Your task to perform on an android device: Open the calendar app, open the side menu, and click the "Day" option Image 0: 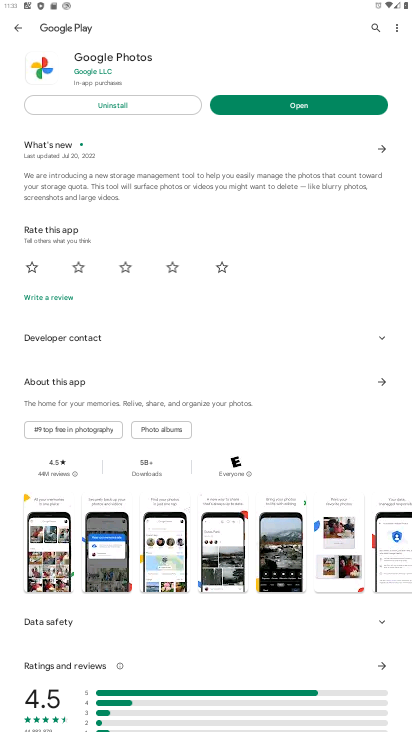
Step 0: press home button
Your task to perform on an android device: Open the calendar app, open the side menu, and click the "Day" option Image 1: 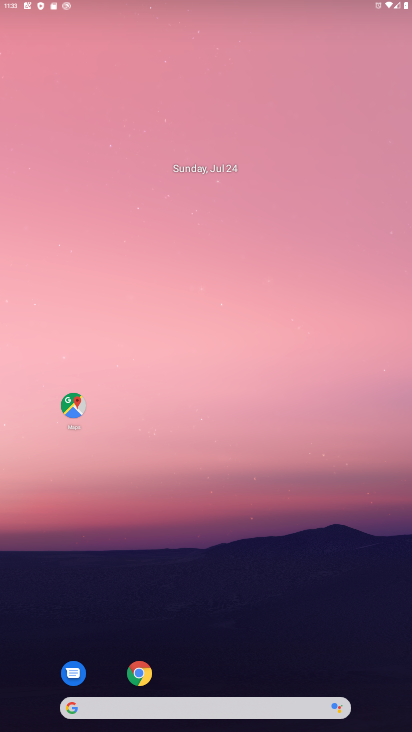
Step 1: drag from (348, 584) to (350, 80)
Your task to perform on an android device: Open the calendar app, open the side menu, and click the "Day" option Image 2: 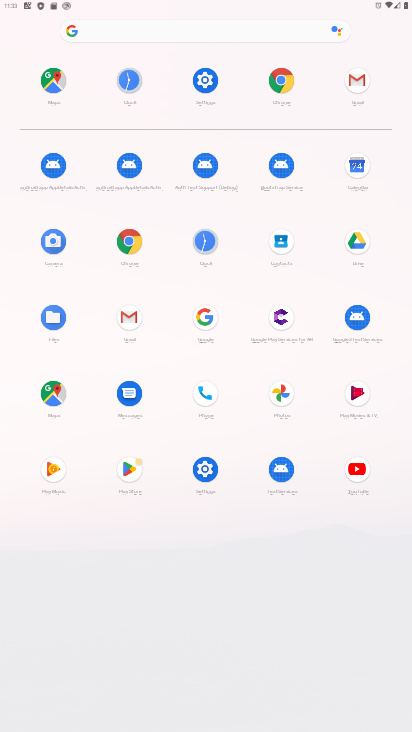
Step 2: click (363, 165)
Your task to perform on an android device: Open the calendar app, open the side menu, and click the "Day" option Image 3: 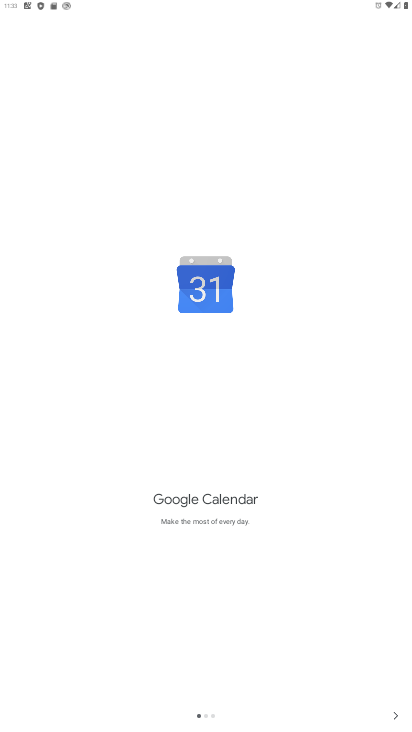
Step 3: click (398, 710)
Your task to perform on an android device: Open the calendar app, open the side menu, and click the "Day" option Image 4: 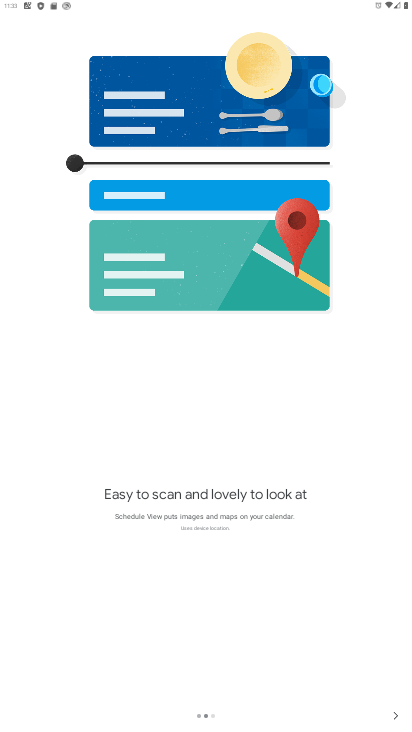
Step 4: click (395, 717)
Your task to perform on an android device: Open the calendar app, open the side menu, and click the "Day" option Image 5: 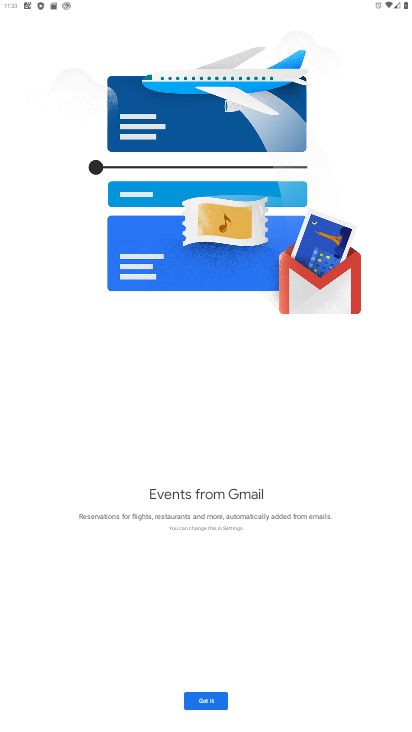
Step 5: click (215, 696)
Your task to perform on an android device: Open the calendar app, open the side menu, and click the "Day" option Image 6: 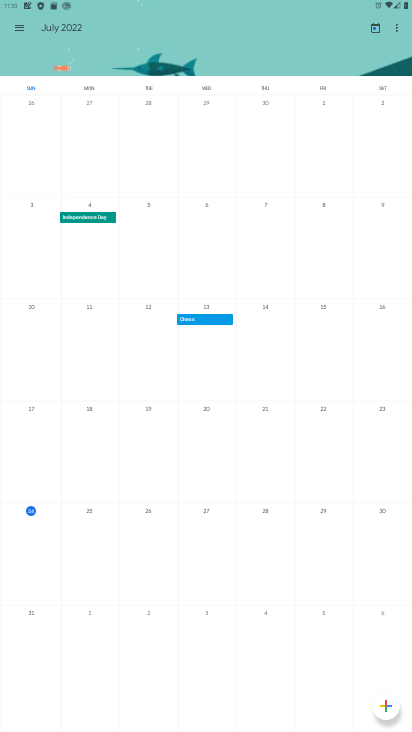
Step 6: click (28, 24)
Your task to perform on an android device: Open the calendar app, open the side menu, and click the "Day" option Image 7: 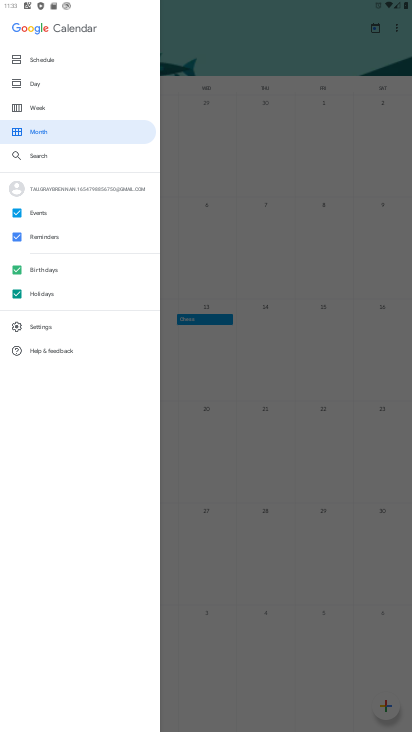
Step 7: click (41, 85)
Your task to perform on an android device: Open the calendar app, open the side menu, and click the "Day" option Image 8: 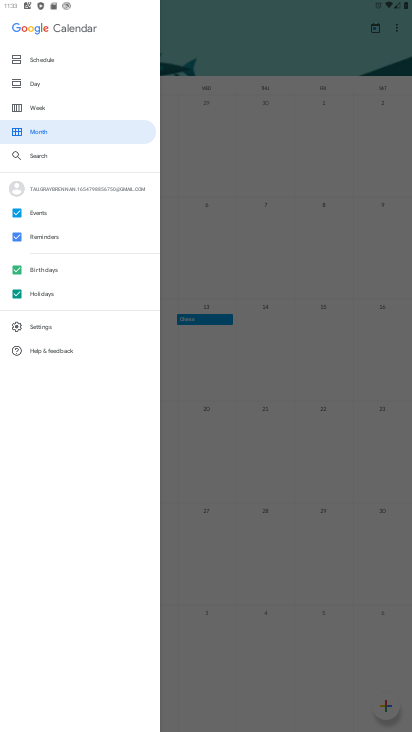
Step 8: click (30, 85)
Your task to perform on an android device: Open the calendar app, open the side menu, and click the "Day" option Image 9: 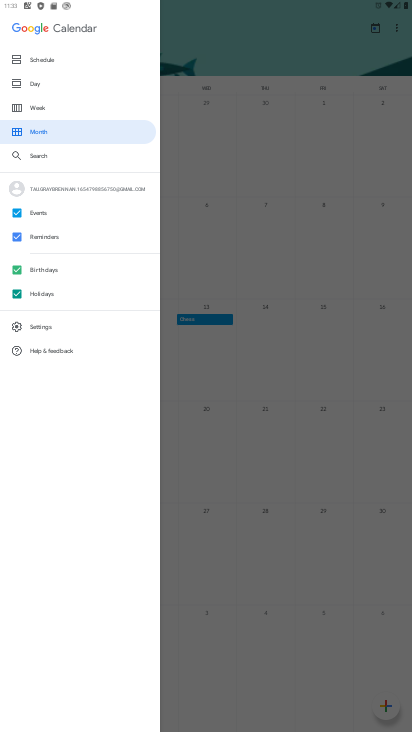
Step 9: click (32, 82)
Your task to perform on an android device: Open the calendar app, open the side menu, and click the "Day" option Image 10: 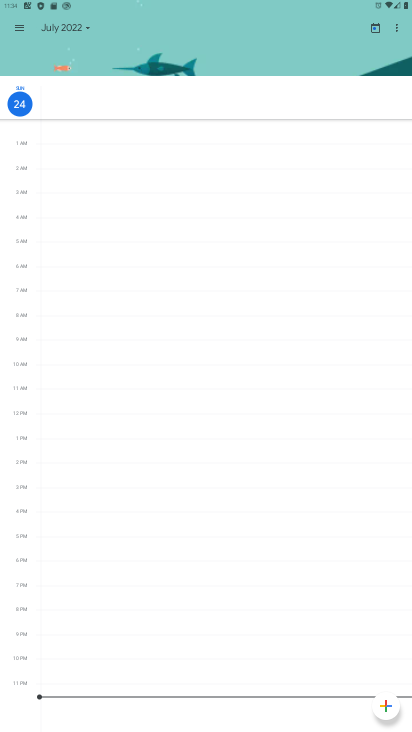
Step 10: task complete